Your task to perform on an android device: Open Google Maps Image 0: 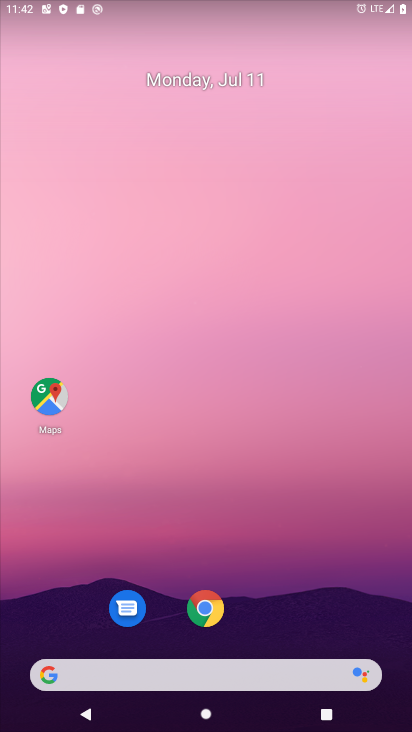
Step 0: click (58, 403)
Your task to perform on an android device: Open Google Maps Image 1: 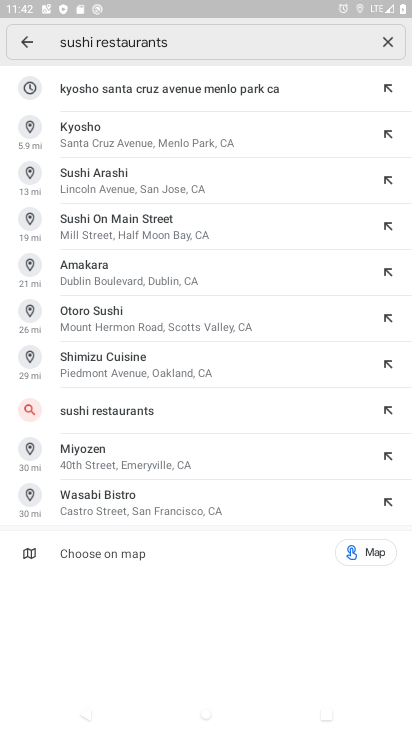
Step 1: click (28, 51)
Your task to perform on an android device: Open Google Maps Image 2: 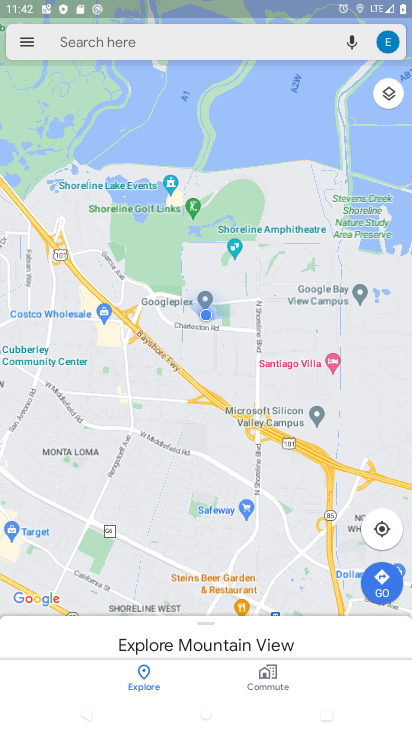
Step 2: task complete